Your task to perform on an android device: find snoozed emails in the gmail app Image 0: 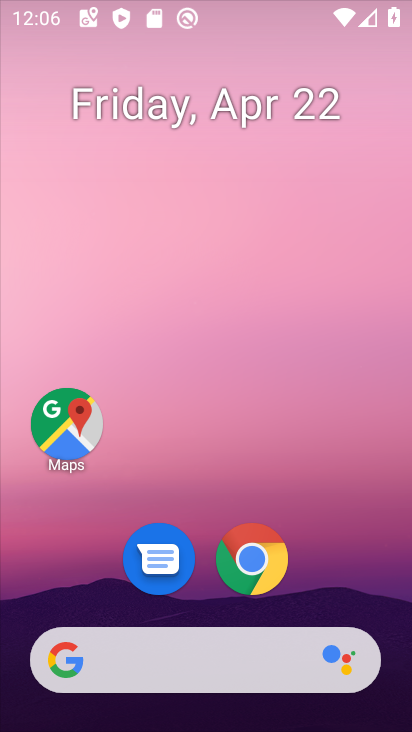
Step 0: drag from (318, 596) to (344, 187)
Your task to perform on an android device: find snoozed emails in the gmail app Image 1: 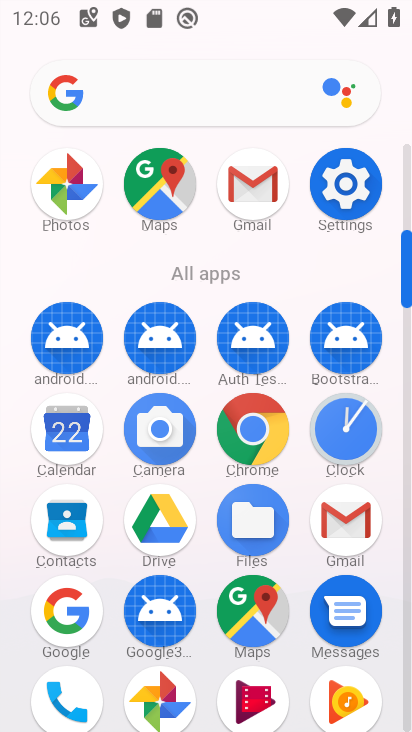
Step 1: click (336, 436)
Your task to perform on an android device: find snoozed emails in the gmail app Image 2: 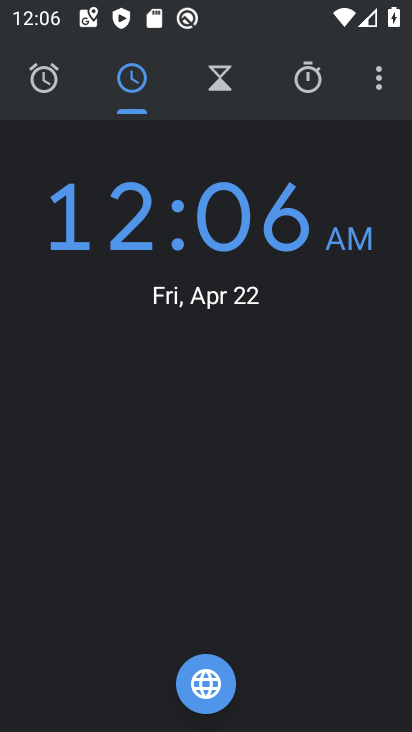
Step 2: press home button
Your task to perform on an android device: find snoozed emails in the gmail app Image 3: 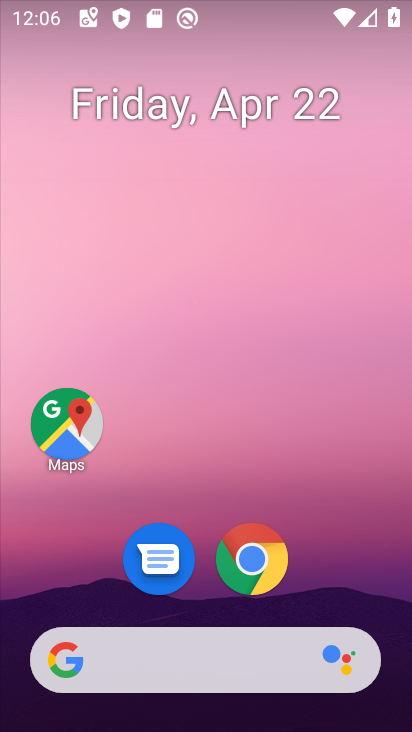
Step 3: drag from (284, 526) to (300, 140)
Your task to perform on an android device: find snoozed emails in the gmail app Image 4: 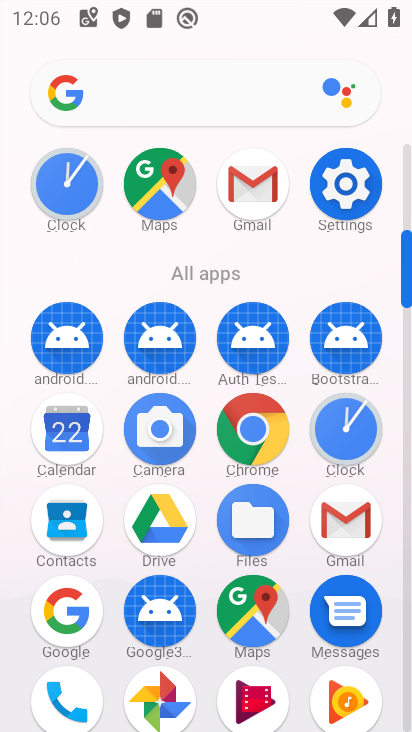
Step 4: click (236, 195)
Your task to perform on an android device: find snoozed emails in the gmail app Image 5: 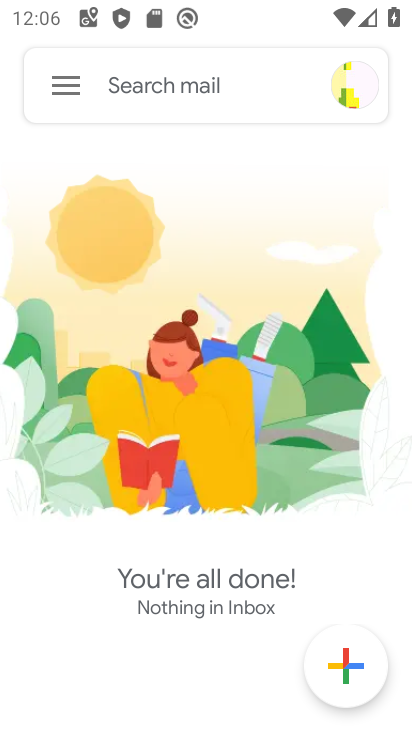
Step 5: click (72, 96)
Your task to perform on an android device: find snoozed emails in the gmail app Image 6: 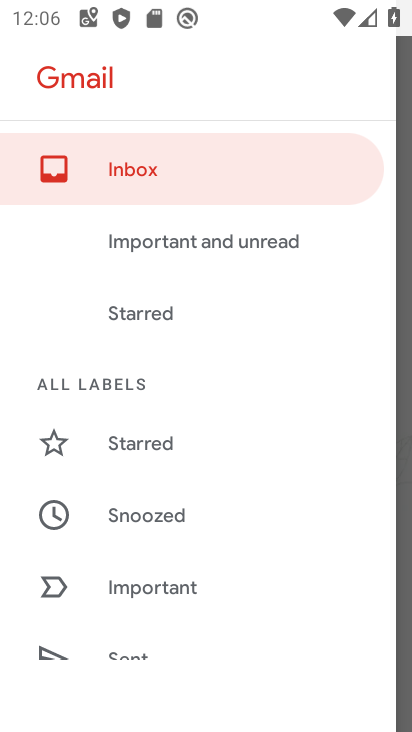
Step 6: click (140, 510)
Your task to perform on an android device: find snoozed emails in the gmail app Image 7: 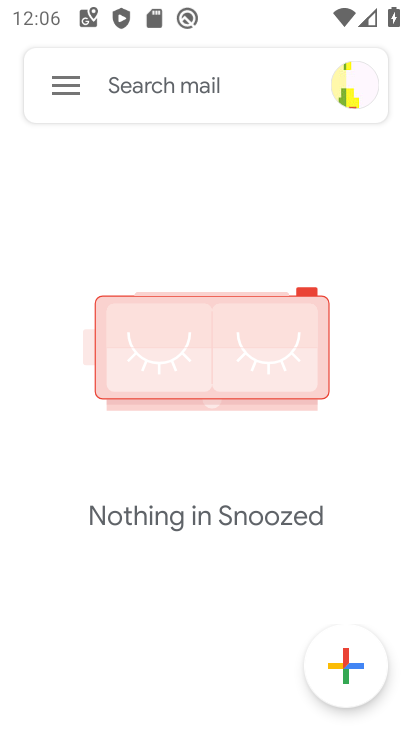
Step 7: task complete